Your task to perform on an android device: Open Youtube and go to "Your channel" Image 0: 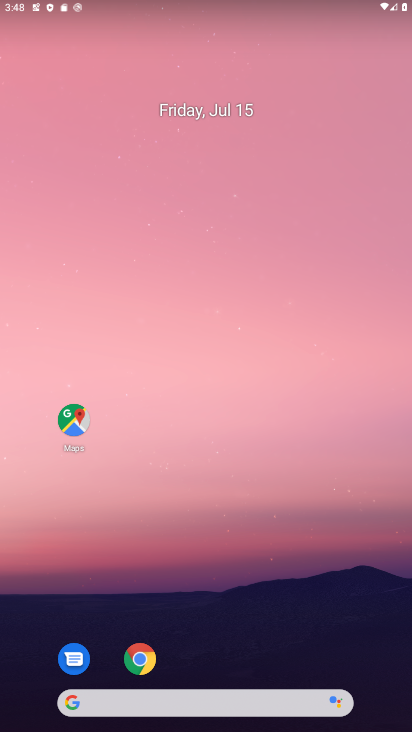
Step 0: drag from (174, 620) to (173, 222)
Your task to perform on an android device: Open Youtube and go to "Your channel" Image 1: 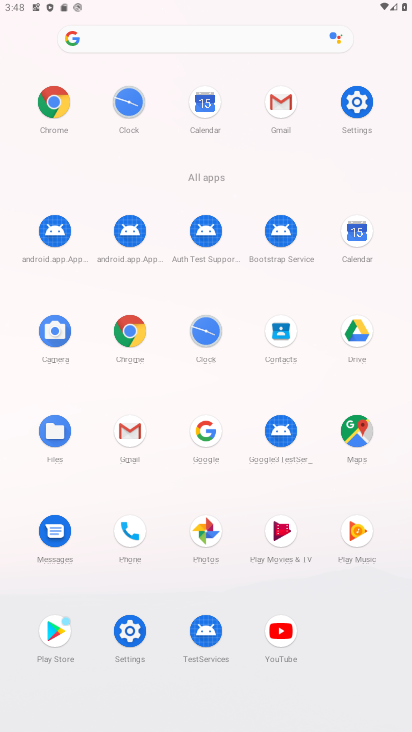
Step 1: click (271, 622)
Your task to perform on an android device: Open Youtube and go to "Your channel" Image 2: 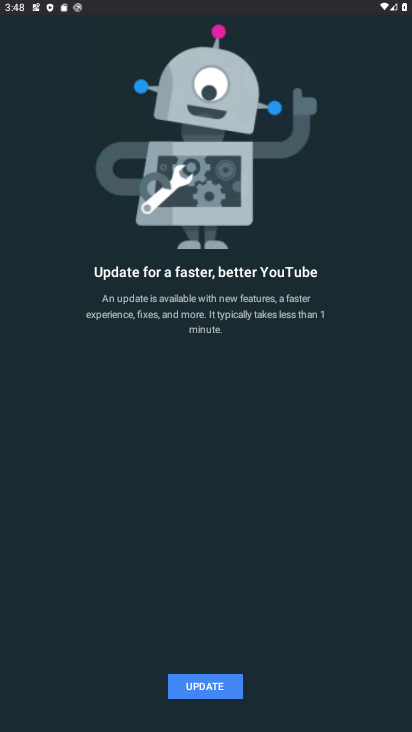
Step 2: click (208, 690)
Your task to perform on an android device: Open Youtube and go to "Your channel" Image 3: 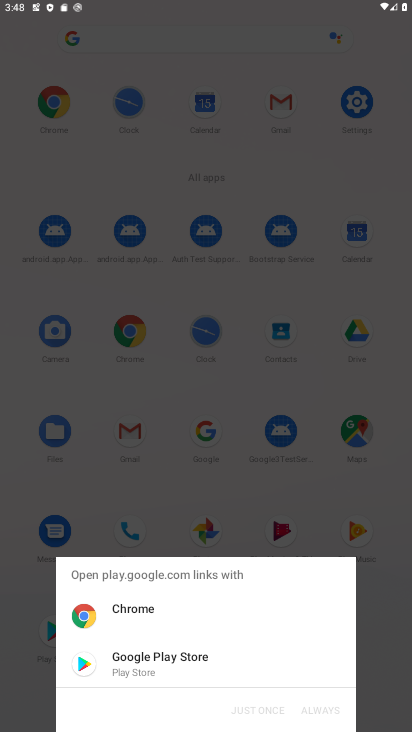
Step 3: click (184, 662)
Your task to perform on an android device: Open Youtube and go to "Your channel" Image 4: 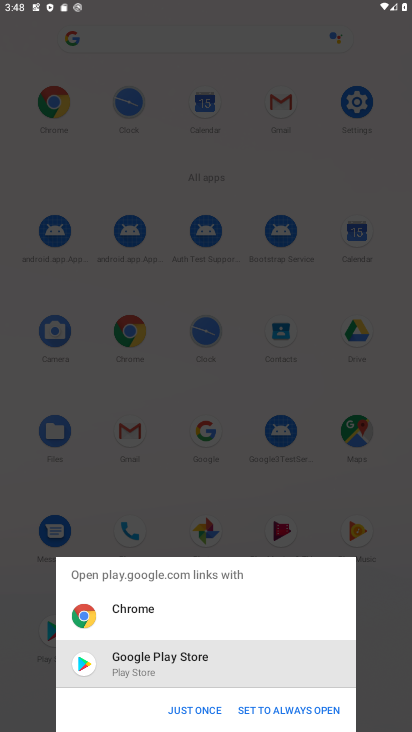
Step 4: click (253, 704)
Your task to perform on an android device: Open Youtube and go to "Your channel" Image 5: 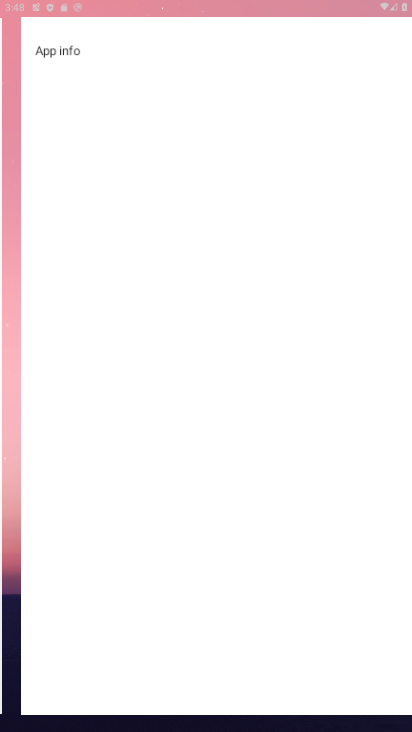
Step 5: click (239, 715)
Your task to perform on an android device: Open Youtube and go to "Your channel" Image 6: 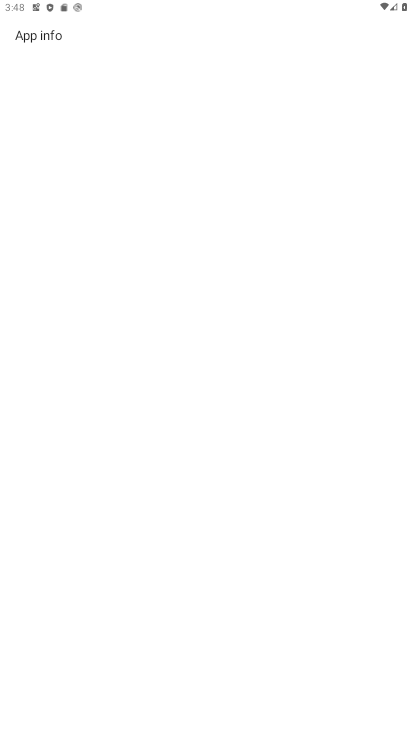
Step 6: click (260, 715)
Your task to perform on an android device: Open Youtube and go to "Your channel" Image 7: 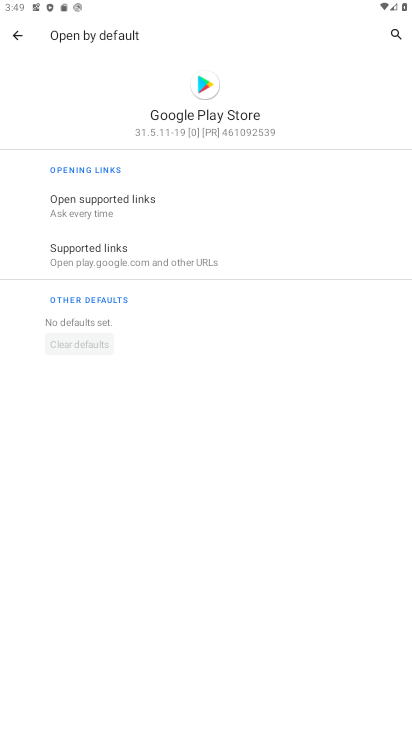
Step 7: click (149, 223)
Your task to perform on an android device: Open Youtube and go to "Your channel" Image 8: 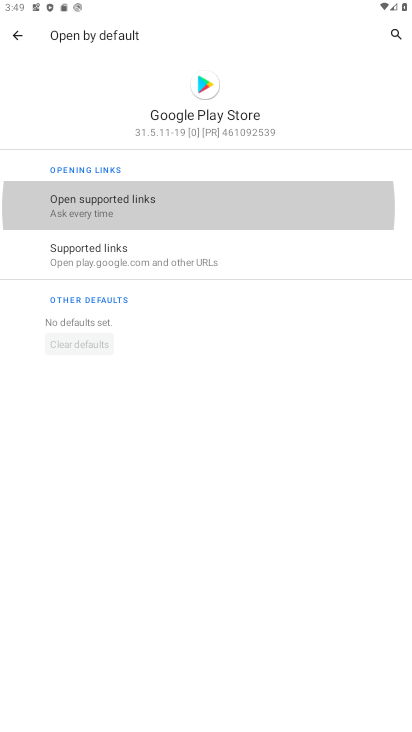
Step 8: click (132, 217)
Your task to perform on an android device: Open Youtube and go to "Your channel" Image 9: 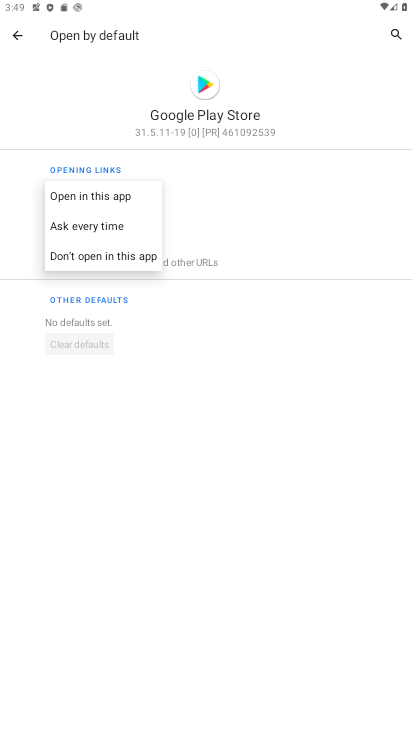
Step 9: click (108, 214)
Your task to perform on an android device: Open Youtube and go to "Your channel" Image 10: 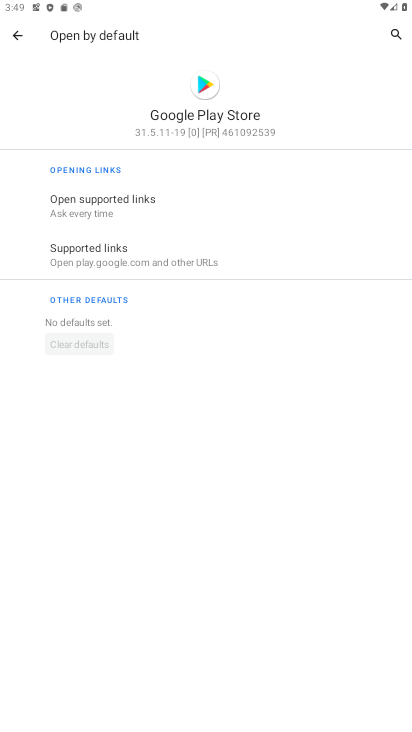
Step 10: click (101, 200)
Your task to perform on an android device: Open Youtube and go to "Your channel" Image 11: 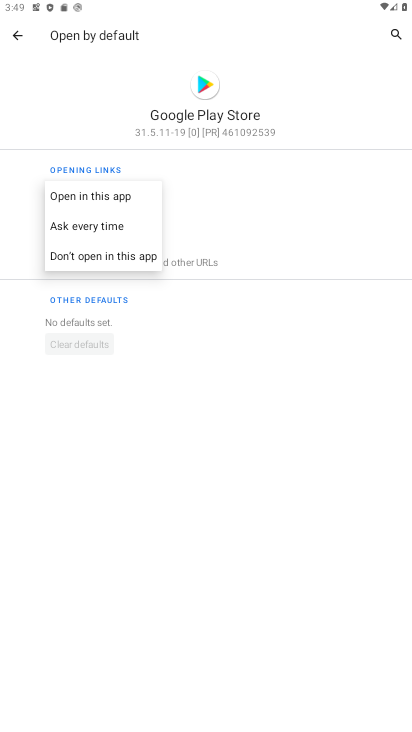
Step 11: click (94, 209)
Your task to perform on an android device: Open Youtube and go to "Your channel" Image 12: 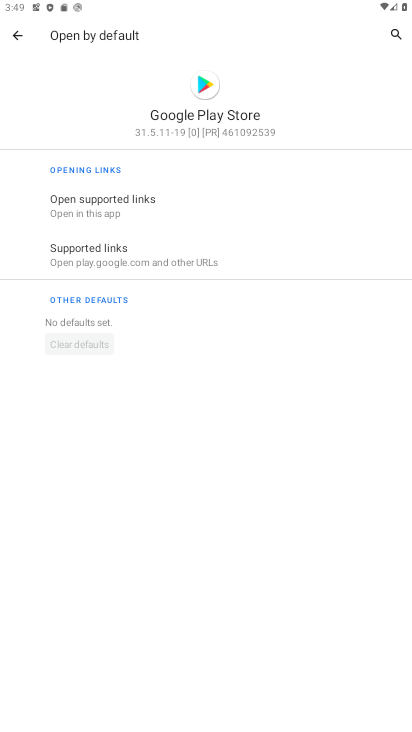
Step 12: click (7, 32)
Your task to perform on an android device: Open Youtube and go to "Your channel" Image 13: 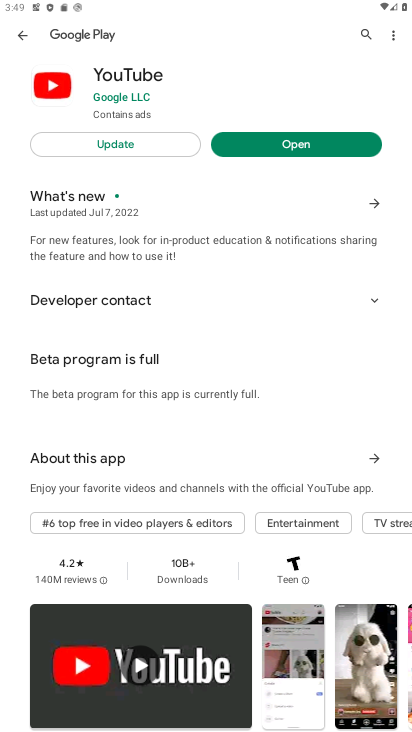
Step 13: click (105, 137)
Your task to perform on an android device: Open Youtube and go to "Your channel" Image 14: 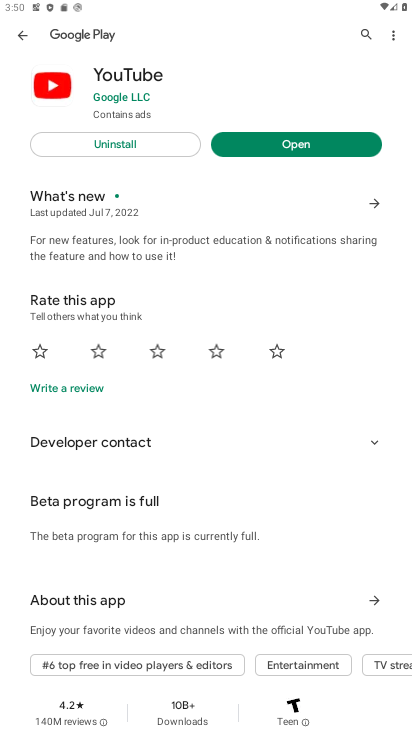
Step 14: click (300, 143)
Your task to perform on an android device: Open Youtube and go to "Your channel" Image 15: 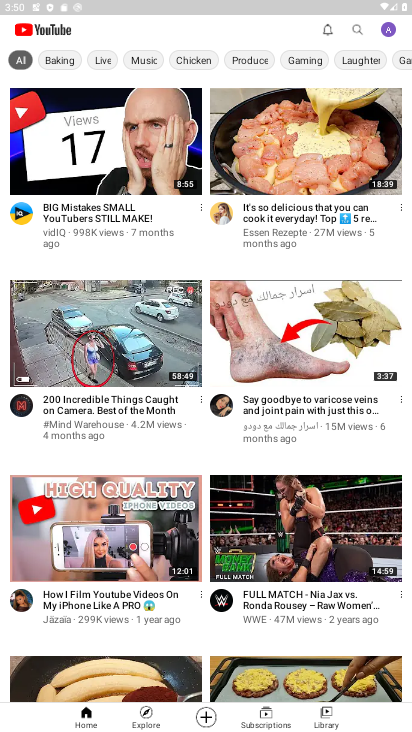
Step 15: click (389, 31)
Your task to perform on an android device: Open Youtube and go to "Your channel" Image 16: 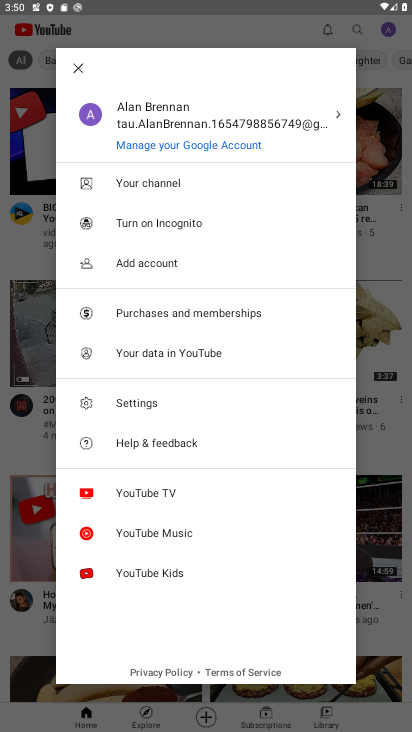
Step 16: click (174, 183)
Your task to perform on an android device: Open Youtube and go to "Your channel" Image 17: 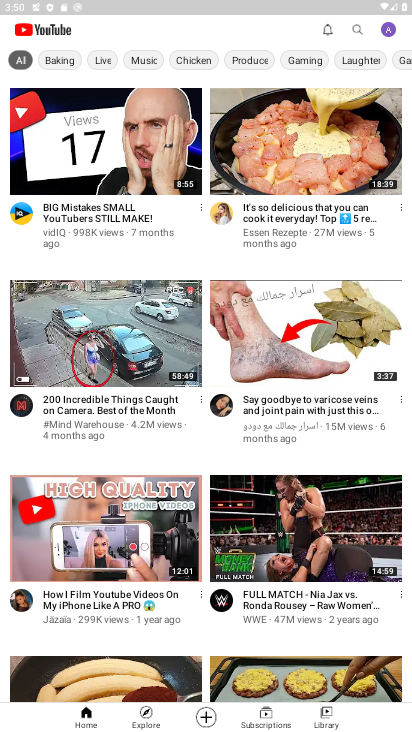
Step 17: task complete